Your task to perform on an android device: Go to calendar. Show me events next week Image 0: 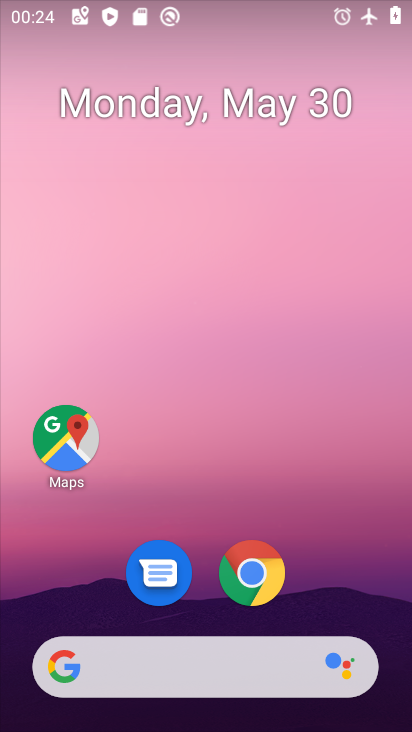
Step 0: click (177, 104)
Your task to perform on an android device: Go to calendar. Show me events next week Image 1: 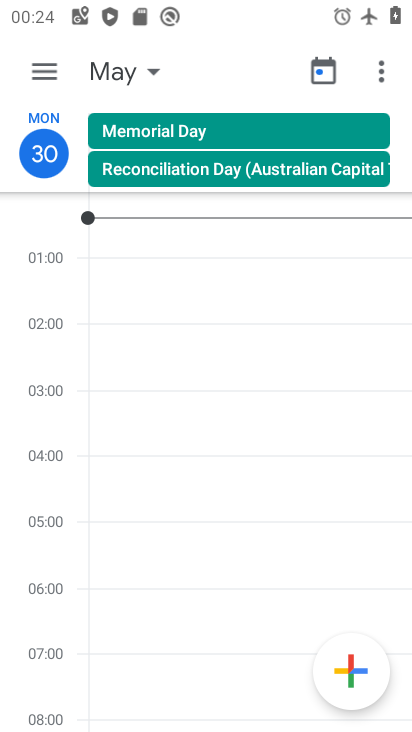
Step 1: click (142, 74)
Your task to perform on an android device: Go to calendar. Show me events next week Image 2: 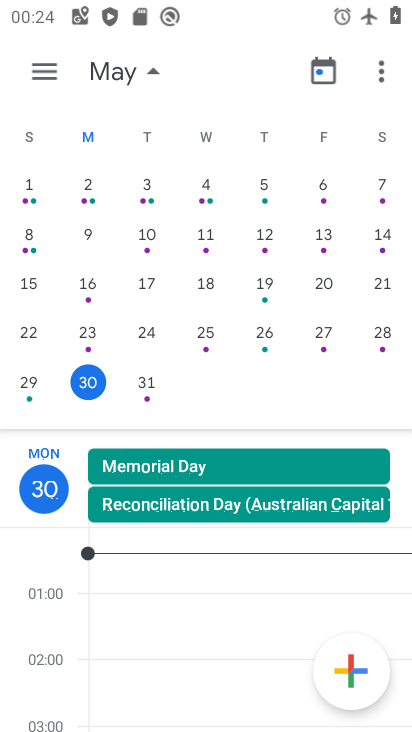
Step 2: drag from (359, 258) to (2, 229)
Your task to perform on an android device: Go to calendar. Show me events next week Image 3: 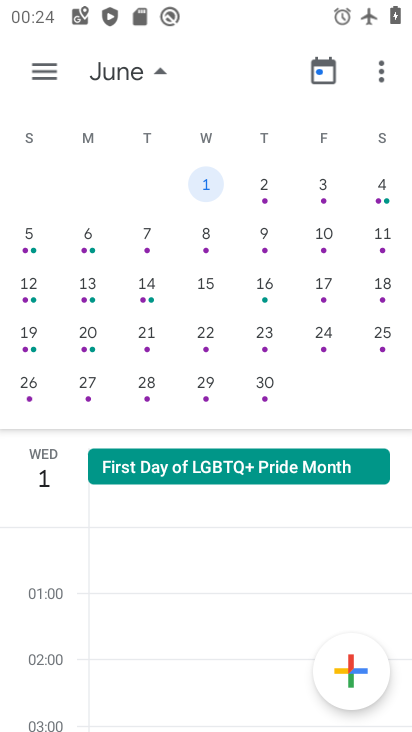
Step 3: click (51, 83)
Your task to perform on an android device: Go to calendar. Show me events next week Image 4: 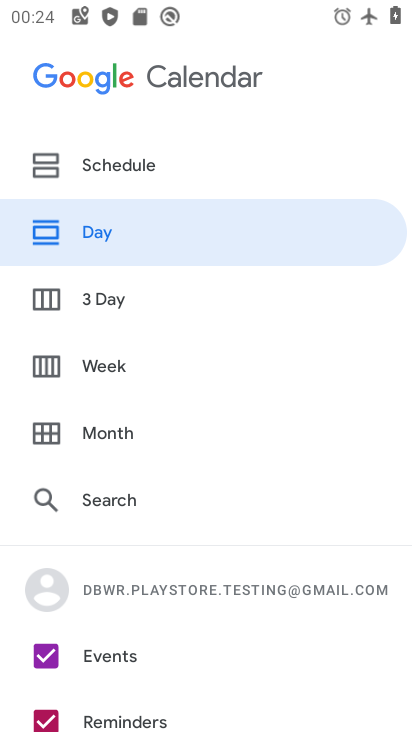
Step 4: click (122, 354)
Your task to perform on an android device: Go to calendar. Show me events next week Image 5: 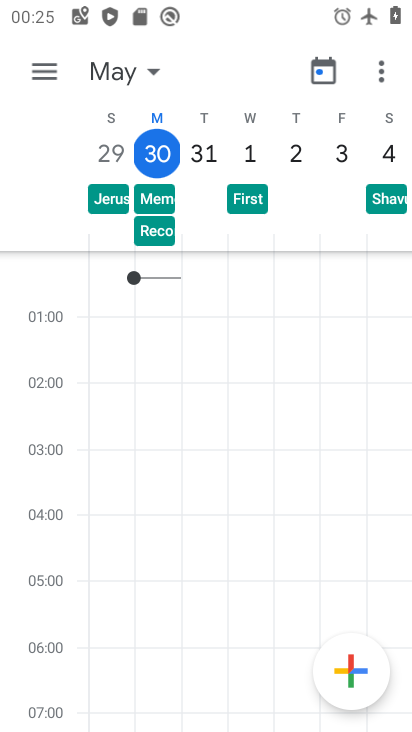
Step 5: task complete